Your task to perform on an android device: Open Google Image 0: 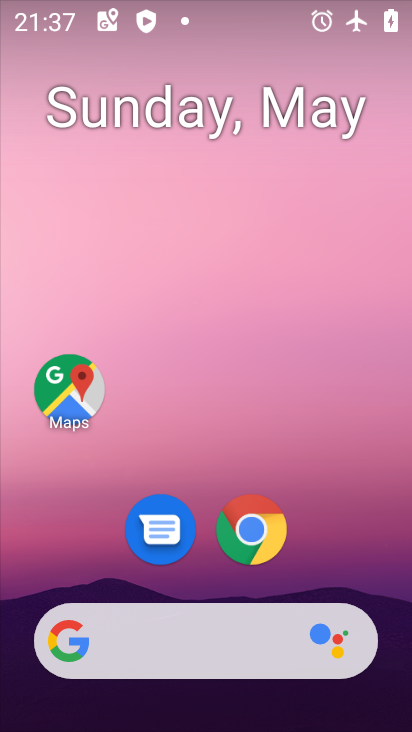
Step 0: drag from (398, 606) to (307, 21)
Your task to perform on an android device: Open Google Image 1: 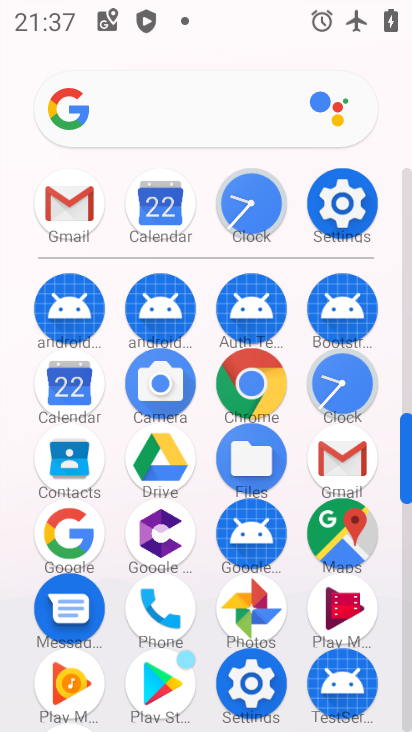
Step 1: click (60, 525)
Your task to perform on an android device: Open Google Image 2: 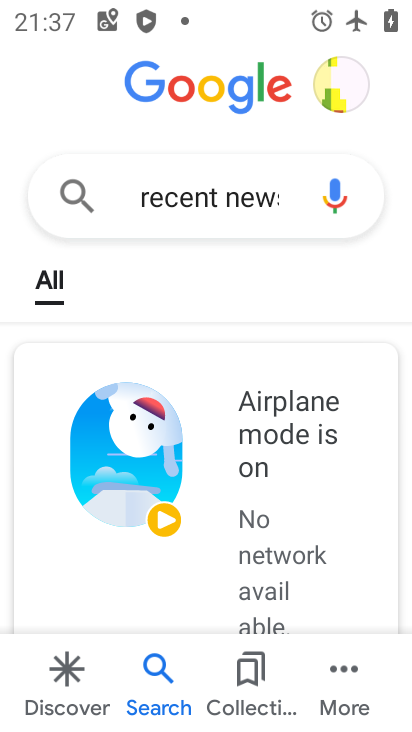
Step 2: task complete